Your task to perform on an android device: Open Youtube and go to the subscriptions tab Image 0: 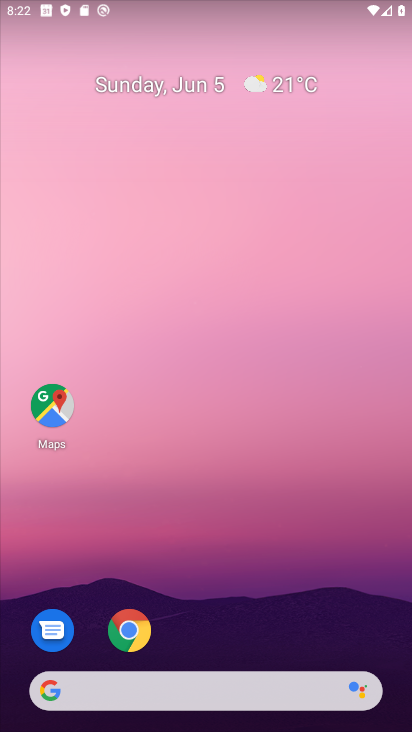
Step 0: click (128, 632)
Your task to perform on an android device: Open Youtube and go to the subscriptions tab Image 1: 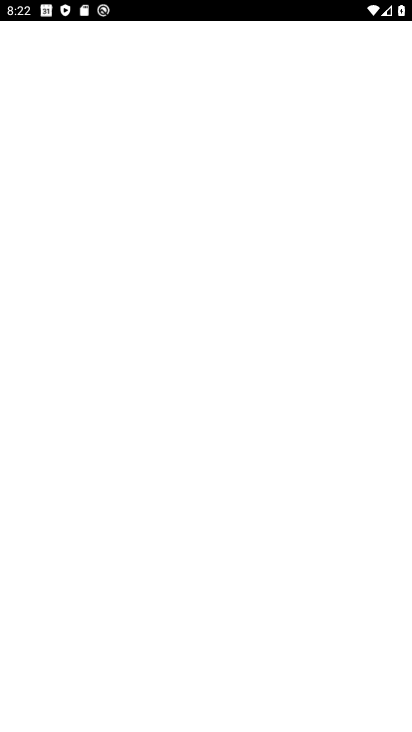
Step 1: press home button
Your task to perform on an android device: Open Youtube and go to the subscriptions tab Image 2: 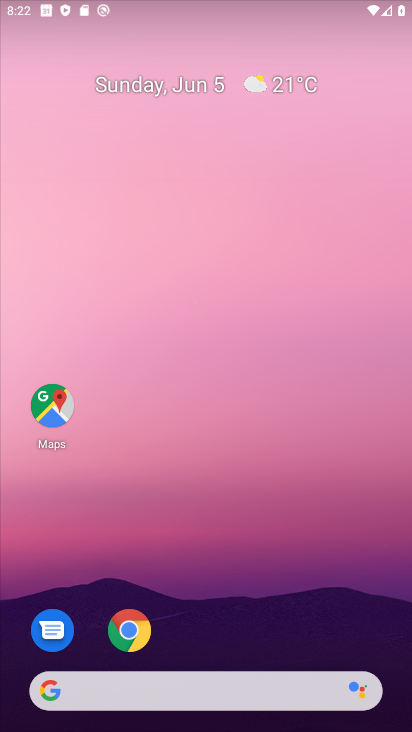
Step 2: drag from (230, 625) to (230, 389)
Your task to perform on an android device: Open Youtube and go to the subscriptions tab Image 3: 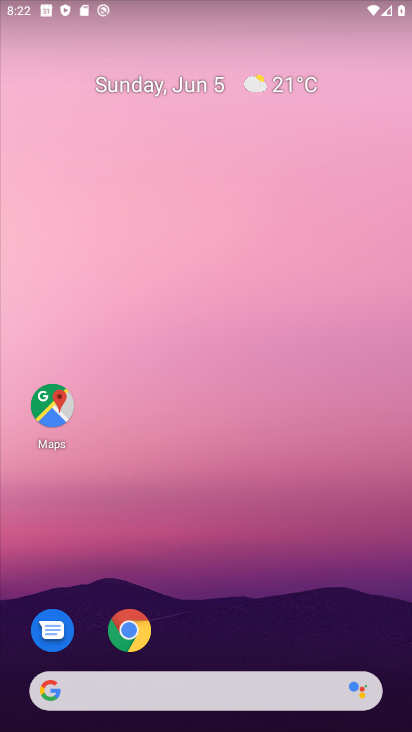
Step 3: drag from (193, 651) to (199, 527)
Your task to perform on an android device: Open Youtube and go to the subscriptions tab Image 4: 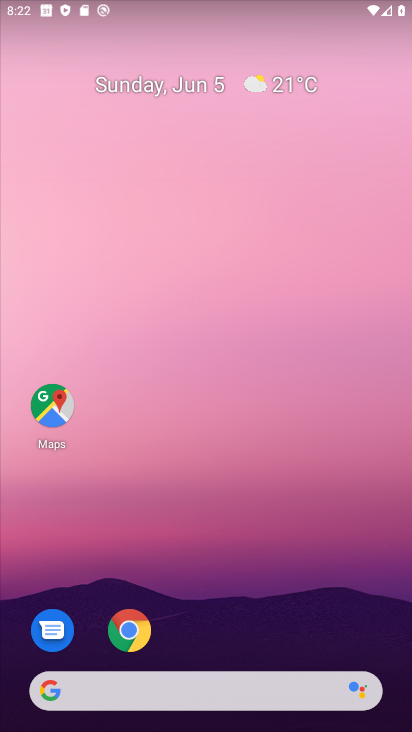
Step 4: drag from (203, 604) to (205, 106)
Your task to perform on an android device: Open Youtube and go to the subscriptions tab Image 5: 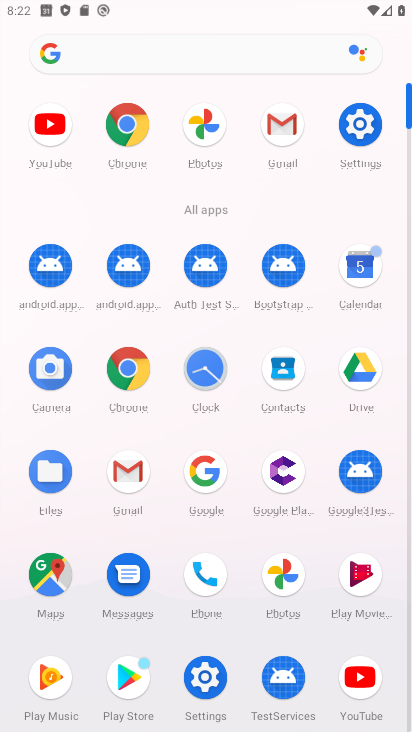
Step 5: drag from (167, 667) to (199, 335)
Your task to perform on an android device: Open Youtube and go to the subscriptions tab Image 6: 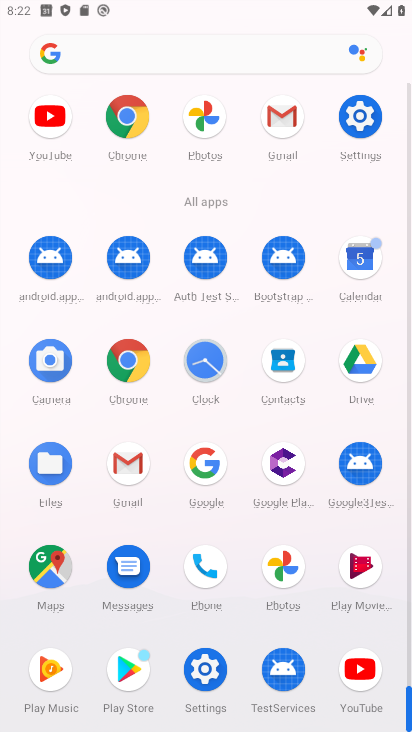
Step 6: click (357, 674)
Your task to perform on an android device: Open Youtube and go to the subscriptions tab Image 7: 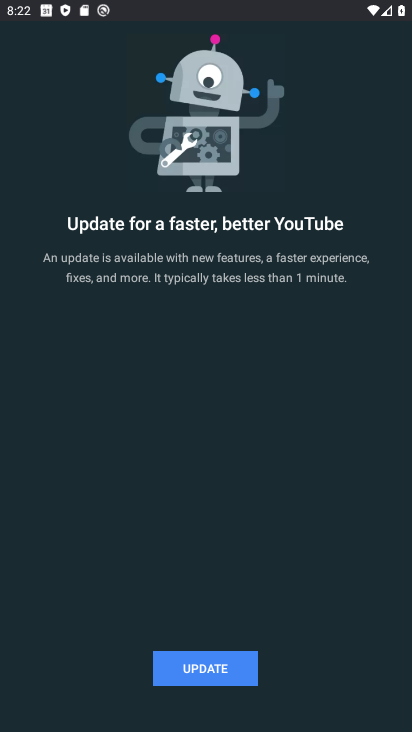
Step 7: click (229, 674)
Your task to perform on an android device: Open Youtube and go to the subscriptions tab Image 8: 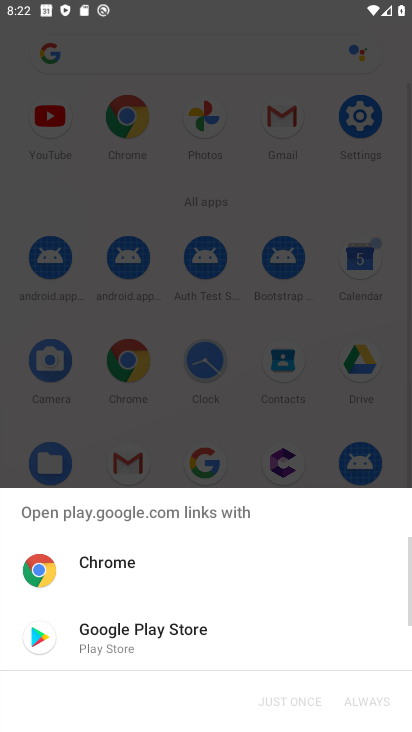
Step 8: click (122, 630)
Your task to perform on an android device: Open Youtube and go to the subscriptions tab Image 9: 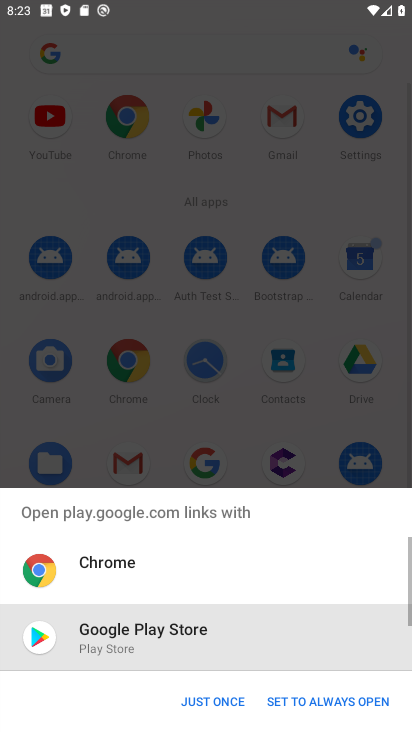
Step 9: click (221, 698)
Your task to perform on an android device: Open Youtube and go to the subscriptions tab Image 10: 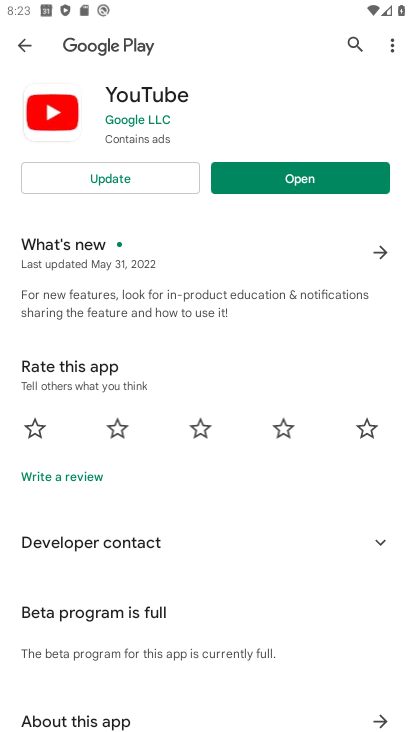
Step 10: click (134, 190)
Your task to perform on an android device: Open Youtube and go to the subscriptions tab Image 11: 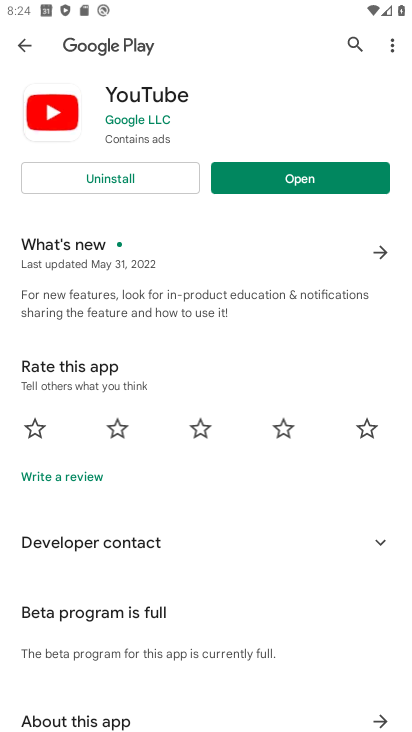
Step 11: click (312, 178)
Your task to perform on an android device: Open Youtube and go to the subscriptions tab Image 12: 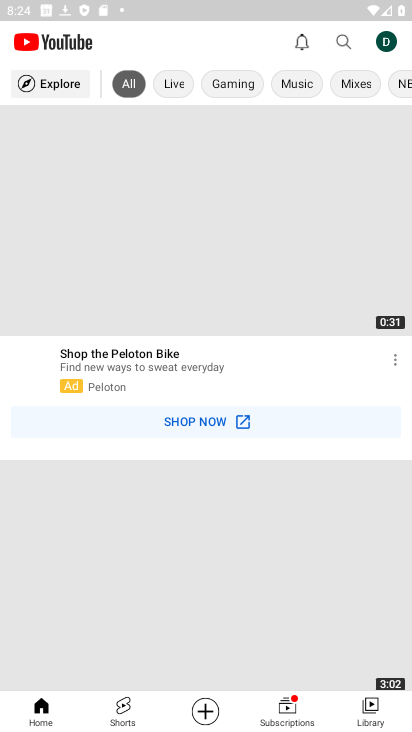
Step 12: click (290, 712)
Your task to perform on an android device: Open Youtube and go to the subscriptions tab Image 13: 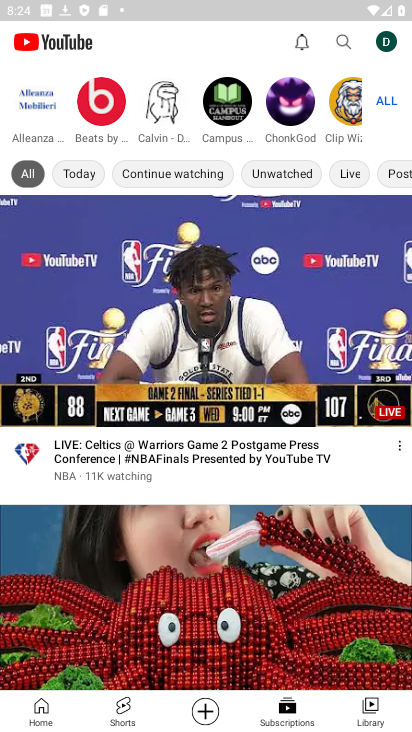
Step 13: task complete